Your task to perform on an android device: Search for Italian restaurants on Maps Image 0: 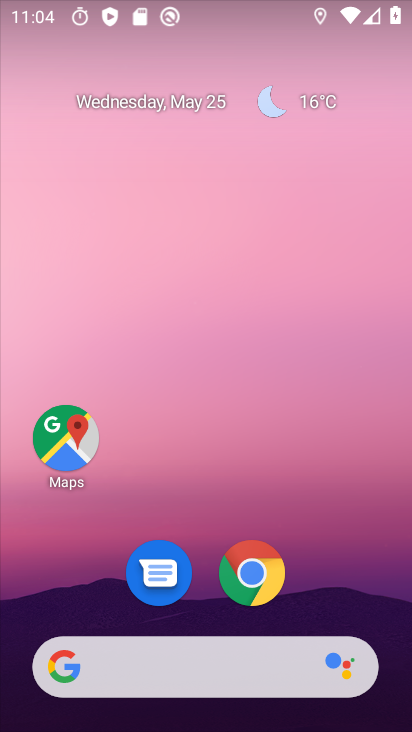
Step 0: click (66, 440)
Your task to perform on an android device: Search for Italian restaurants on Maps Image 1: 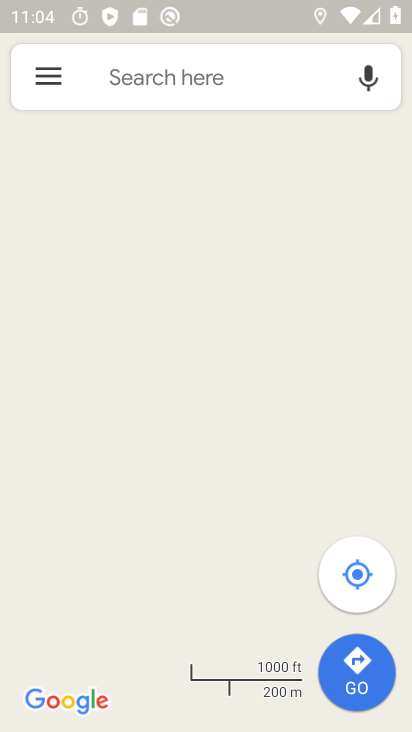
Step 1: click (112, 77)
Your task to perform on an android device: Search for Italian restaurants on Maps Image 2: 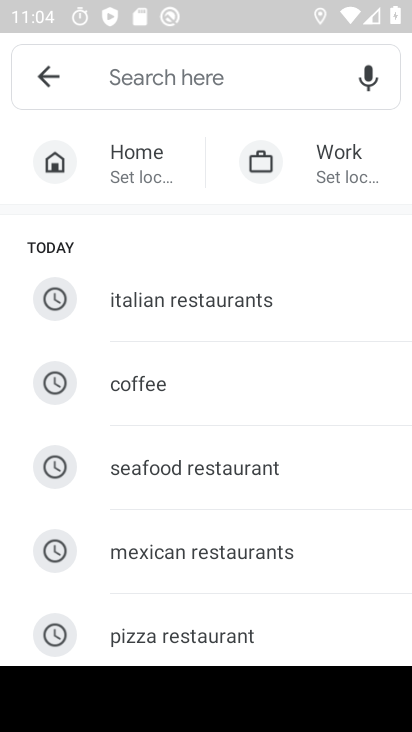
Step 2: type "italian restaurants "
Your task to perform on an android device: Search for Italian restaurants on Maps Image 3: 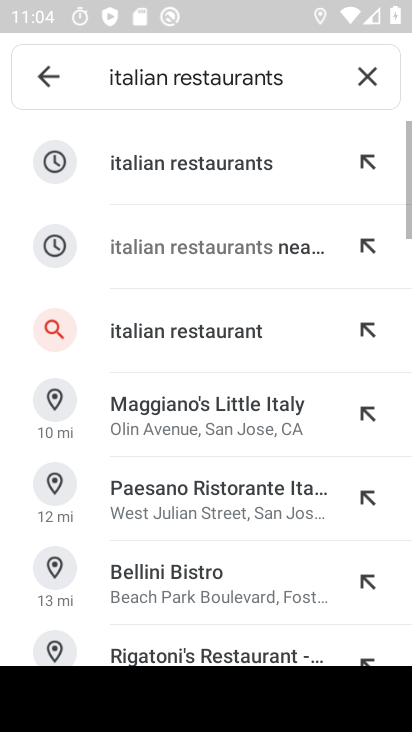
Step 3: click (155, 171)
Your task to perform on an android device: Search for Italian restaurants on Maps Image 4: 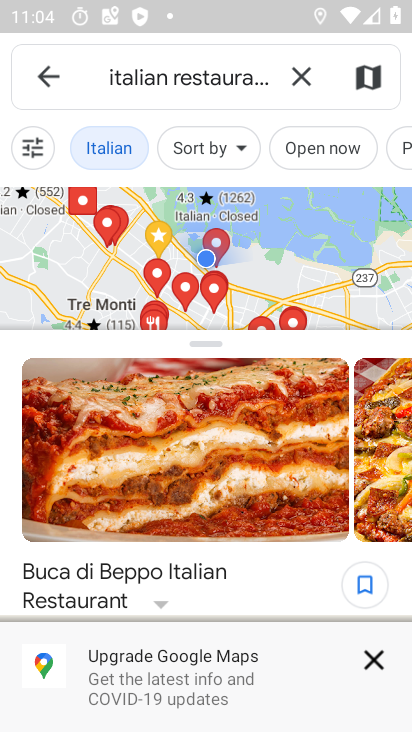
Step 4: task complete